Your task to perform on an android device: Open sound settings Image 0: 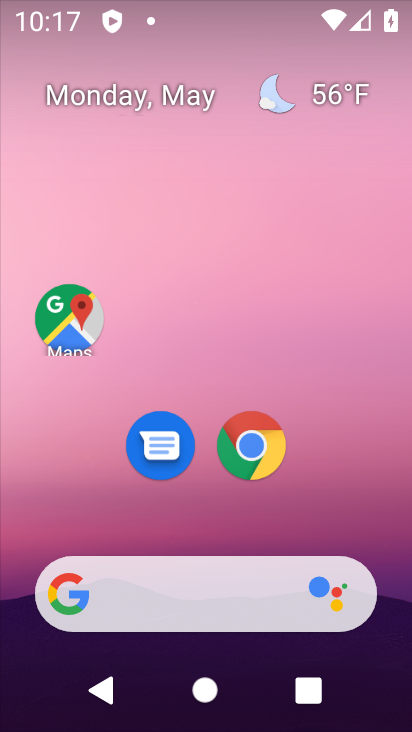
Step 0: drag from (231, 557) to (242, 166)
Your task to perform on an android device: Open sound settings Image 1: 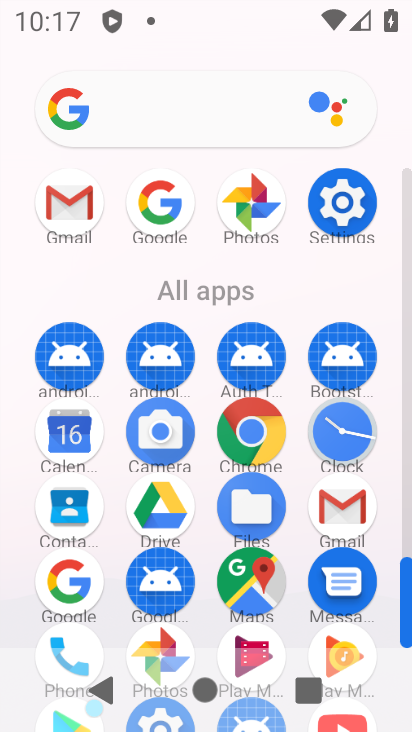
Step 1: click (341, 206)
Your task to perform on an android device: Open sound settings Image 2: 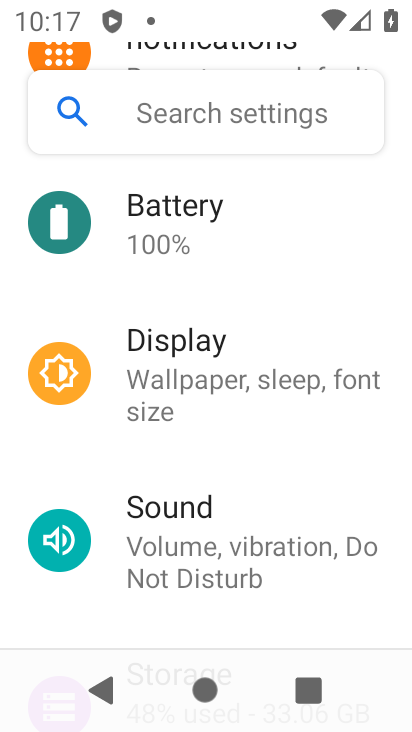
Step 2: click (187, 546)
Your task to perform on an android device: Open sound settings Image 3: 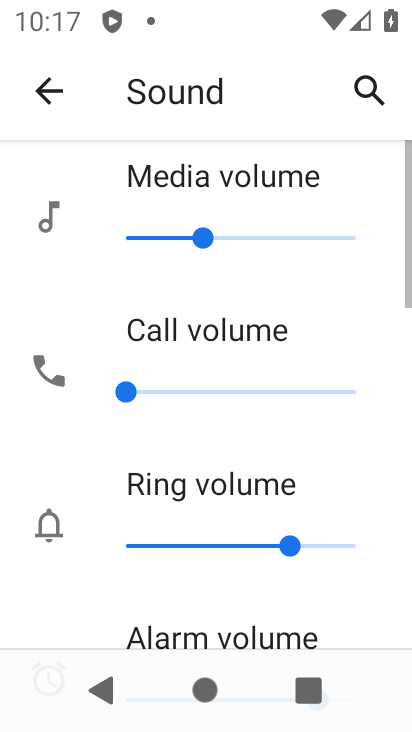
Step 3: task complete